Your task to perform on an android device: toggle priority inbox in the gmail app Image 0: 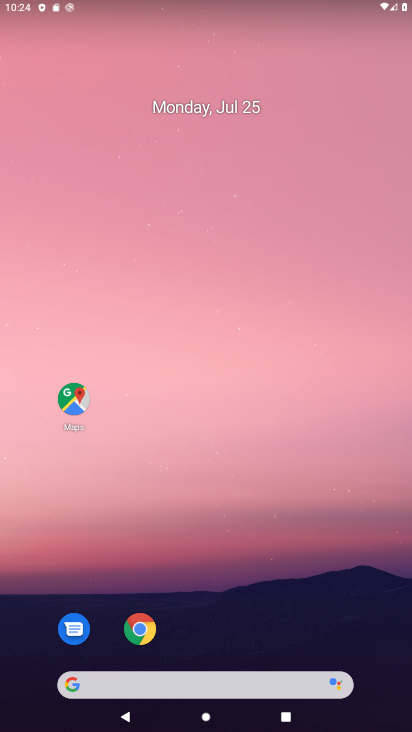
Step 0: drag from (231, 605) to (169, 20)
Your task to perform on an android device: toggle priority inbox in the gmail app Image 1: 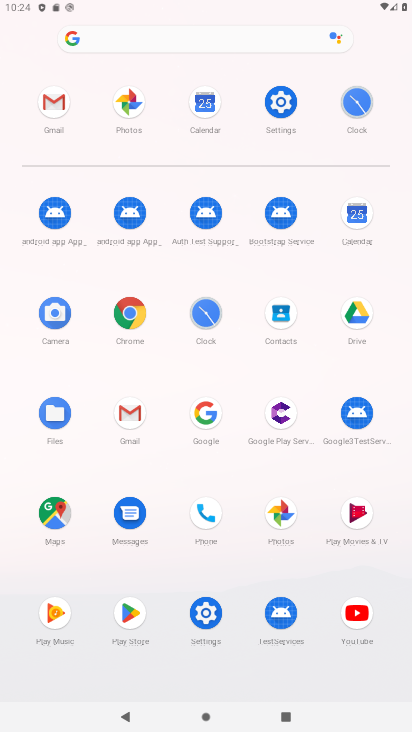
Step 1: click (48, 105)
Your task to perform on an android device: toggle priority inbox in the gmail app Image 2: 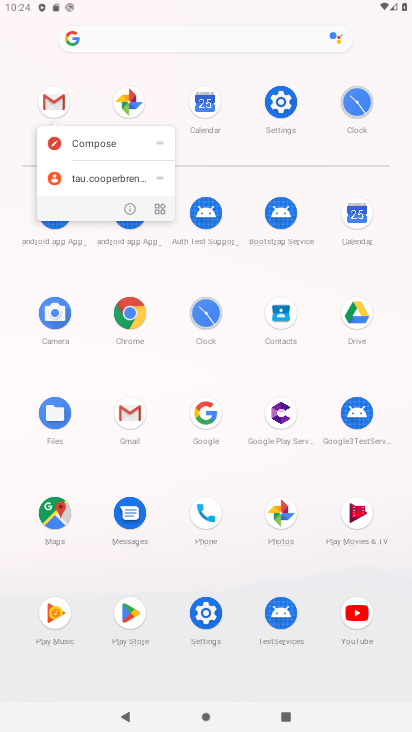
Step 2: click (48, 105)
Your task to perform on an android device: toggle priority inbox in the gmail app Image 3: 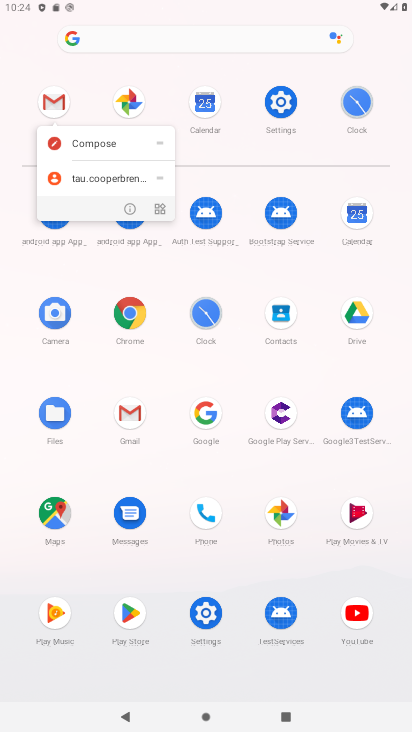
Step 3: click (48, 105)
Your task to perform on an android device: toggle priority inbox in the gmail app Image 4: 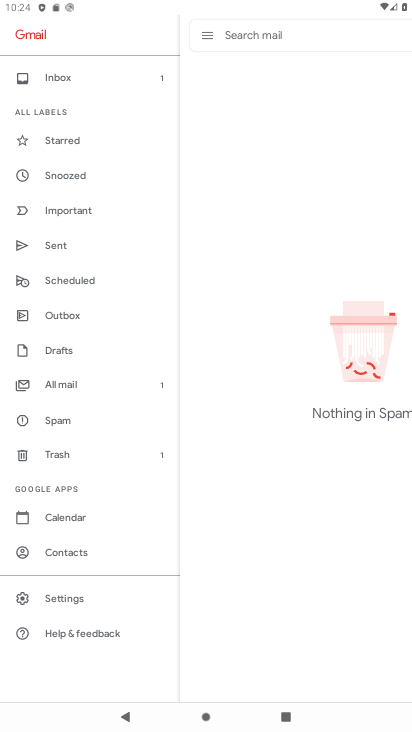
Step 4: click (51, 599)
Your task to perform on an android device: toggle priority inbox in the gmail app Image 5: 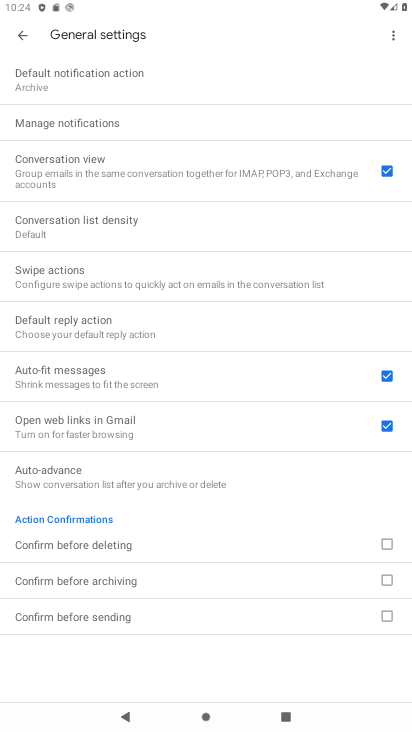
Step 5: click (17, 42)
Your task to perform on an android device: toggle priority inbox in the gmail app Image 6: 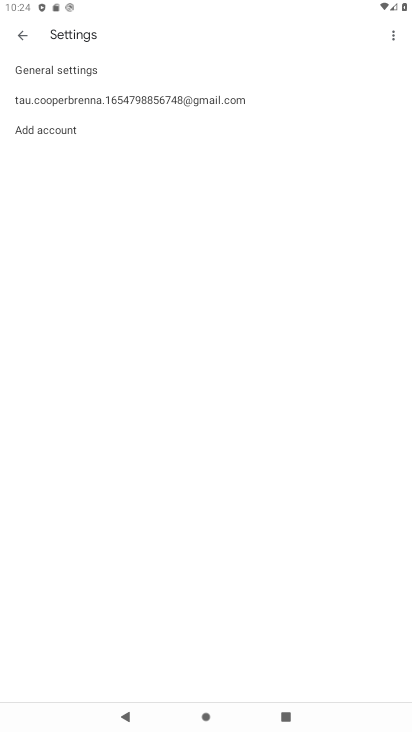
Step 6: click (56, 100)
Your task to perform on an android device: toggle priority inbox in the gmail app Image 7: 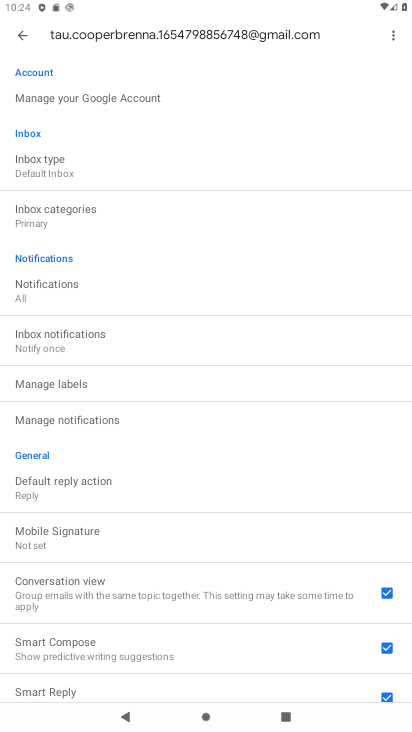
Step 7: click (28, 170)
Your task to perform on an android device: toggle priority inbox in the gmail app Image 8: 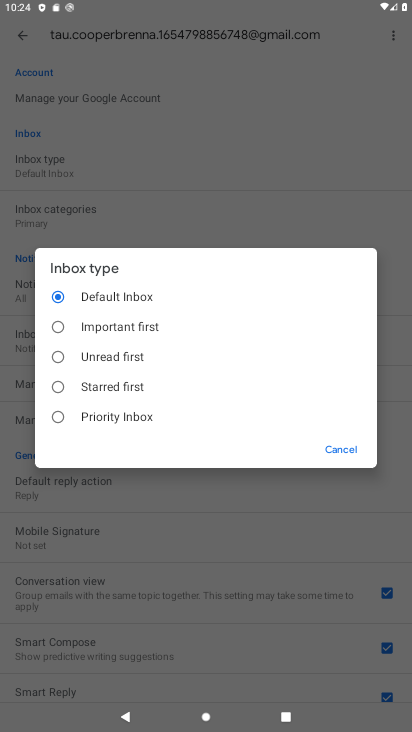
Step 8: click (56, 423)
Your task to perform on an android device: toggle priority inbox in the gmail app Image 9: 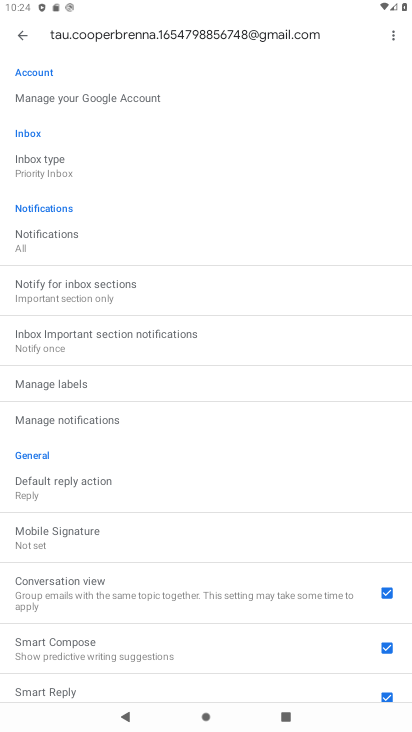
Step 9: task complete